Your task to perform on an android device: change text size in settings app Image 0: 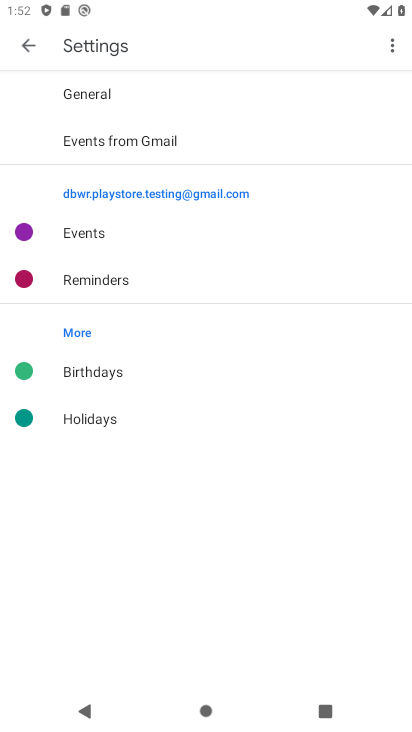
Step 0: press home button
Your task to perform on an android device: change text size in settings app Image 1: 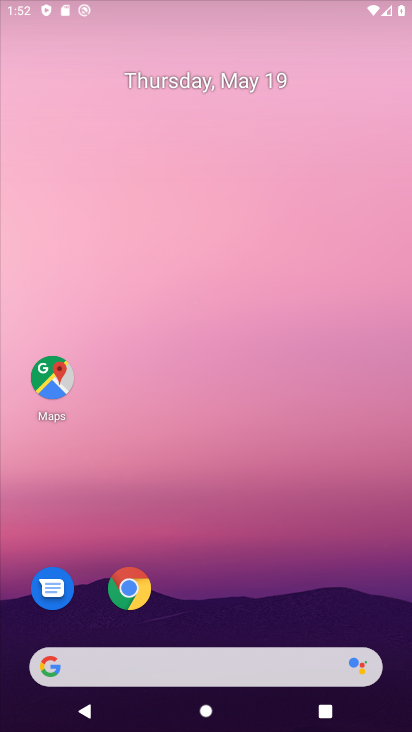
Step 1: drag from (199, 471) to (183, 51)
Your task to perform on an android device: change text size in settings app Image 2: 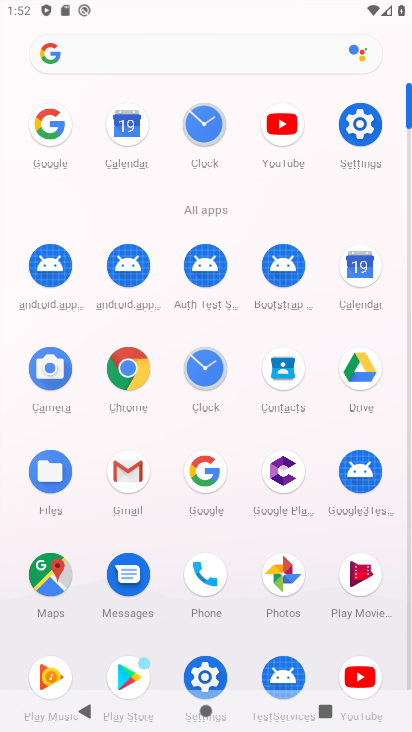
Step 2: click (355, 119)
Your task to perform on an android device: change text size in settings app Image 3: 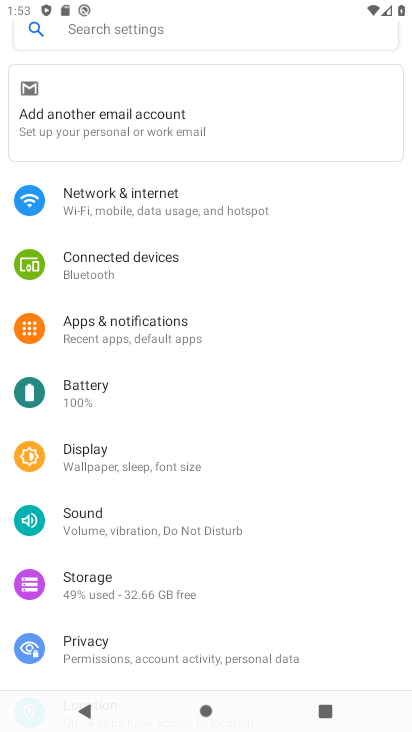
Step 3: click (136, 457)
Your task to perform on an android device: change text size in settings app Image 4: 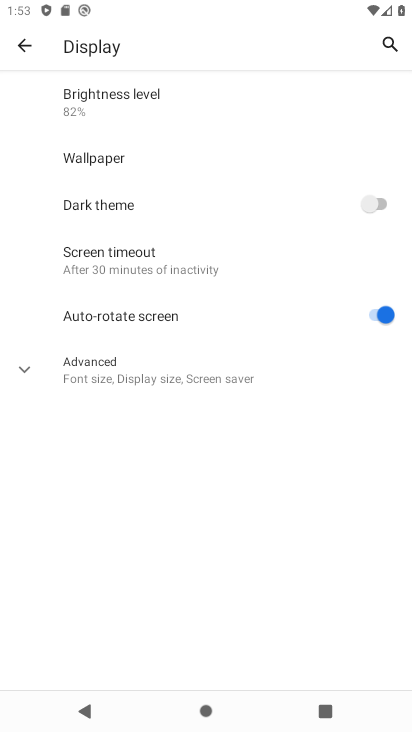
Step 4: click (110, 371)
Your task to perform on an android device: change text size in settings app Image 5: 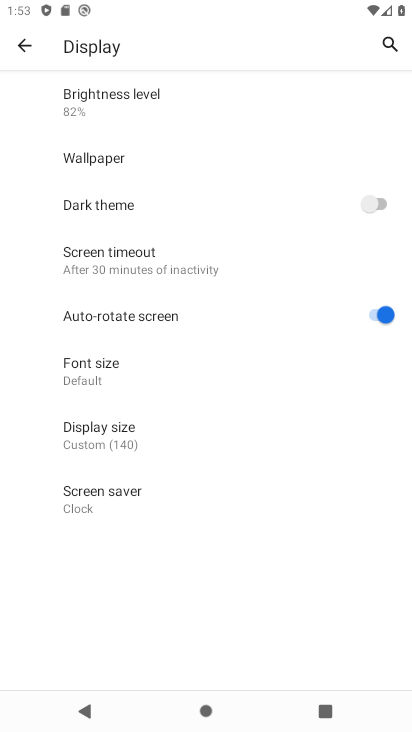
Step 5: click (110, 377)
Your task to perform on an android device: change text size in settings app Image 6: 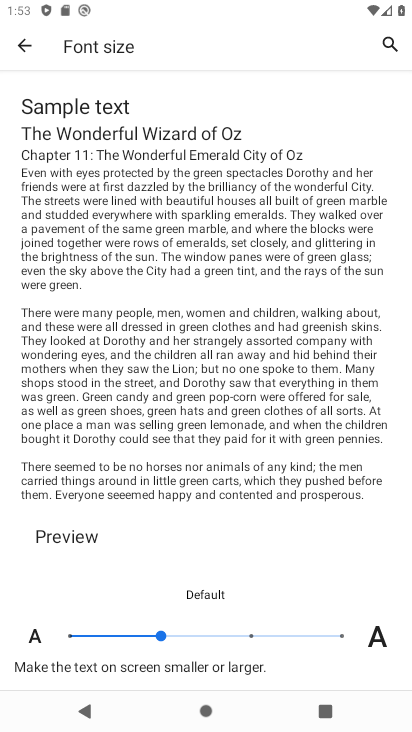
Step 6: task complete